Your task to perform on an android device: Check the news Image 0: 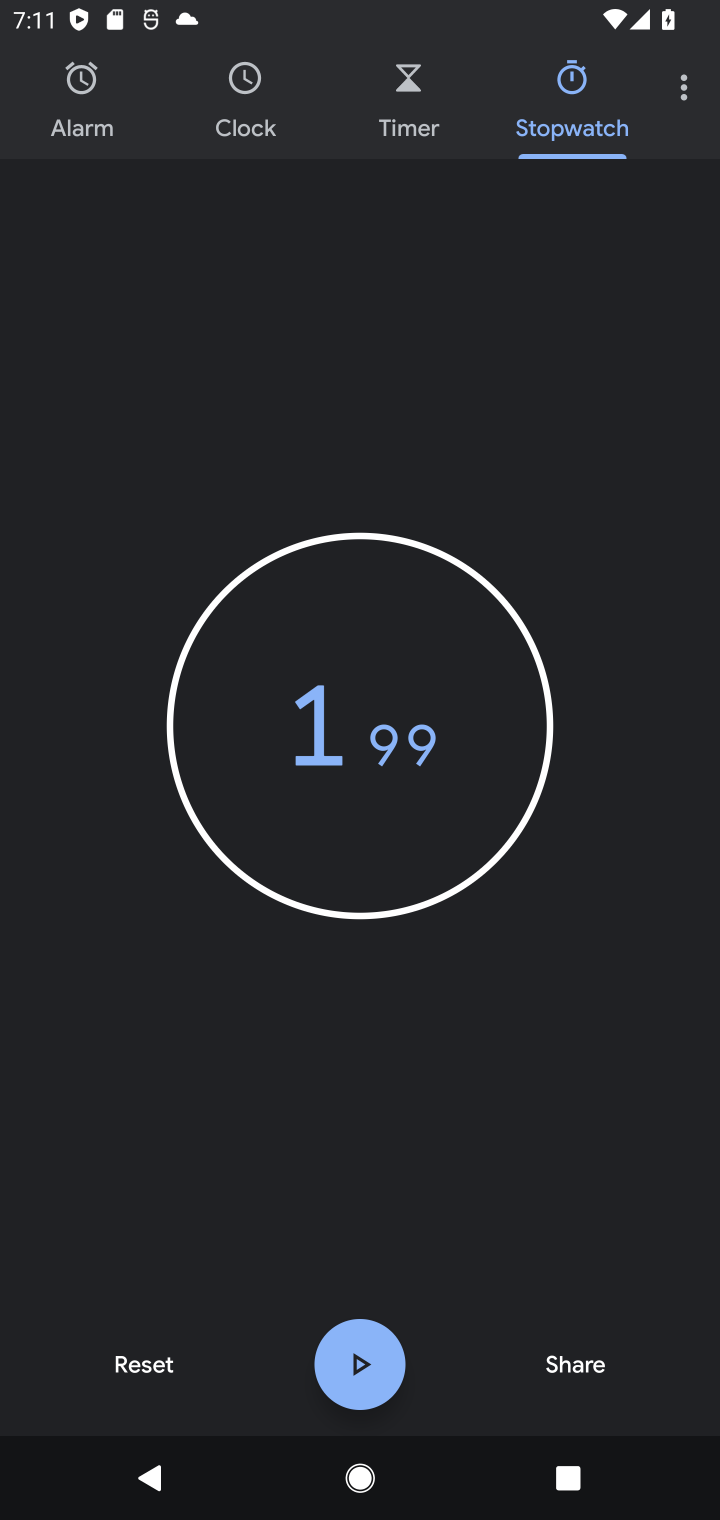
Step 0: press home button
Your task to perform on an android device: Check the news Image 1: 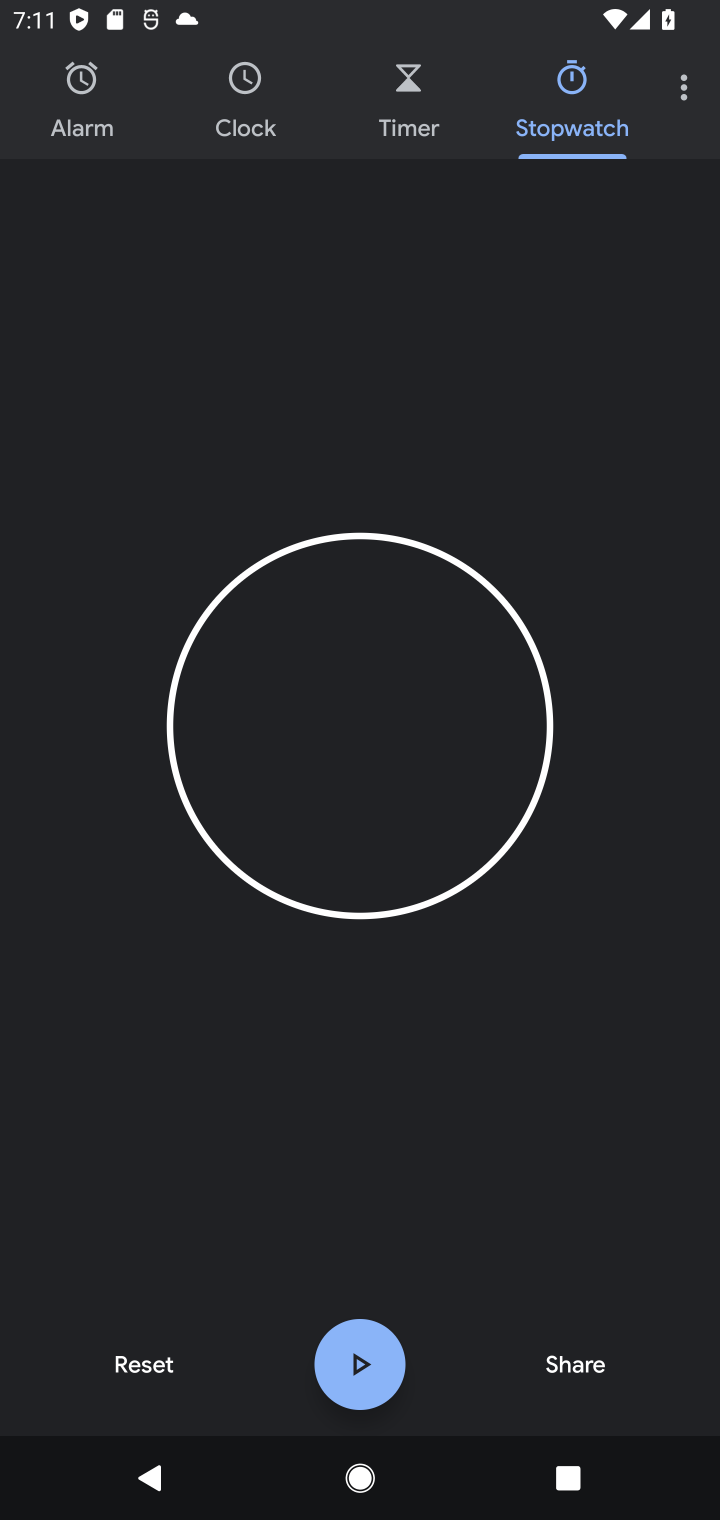
Step 1: press home button
Your task to perform on an android device: Check the news Image 2: 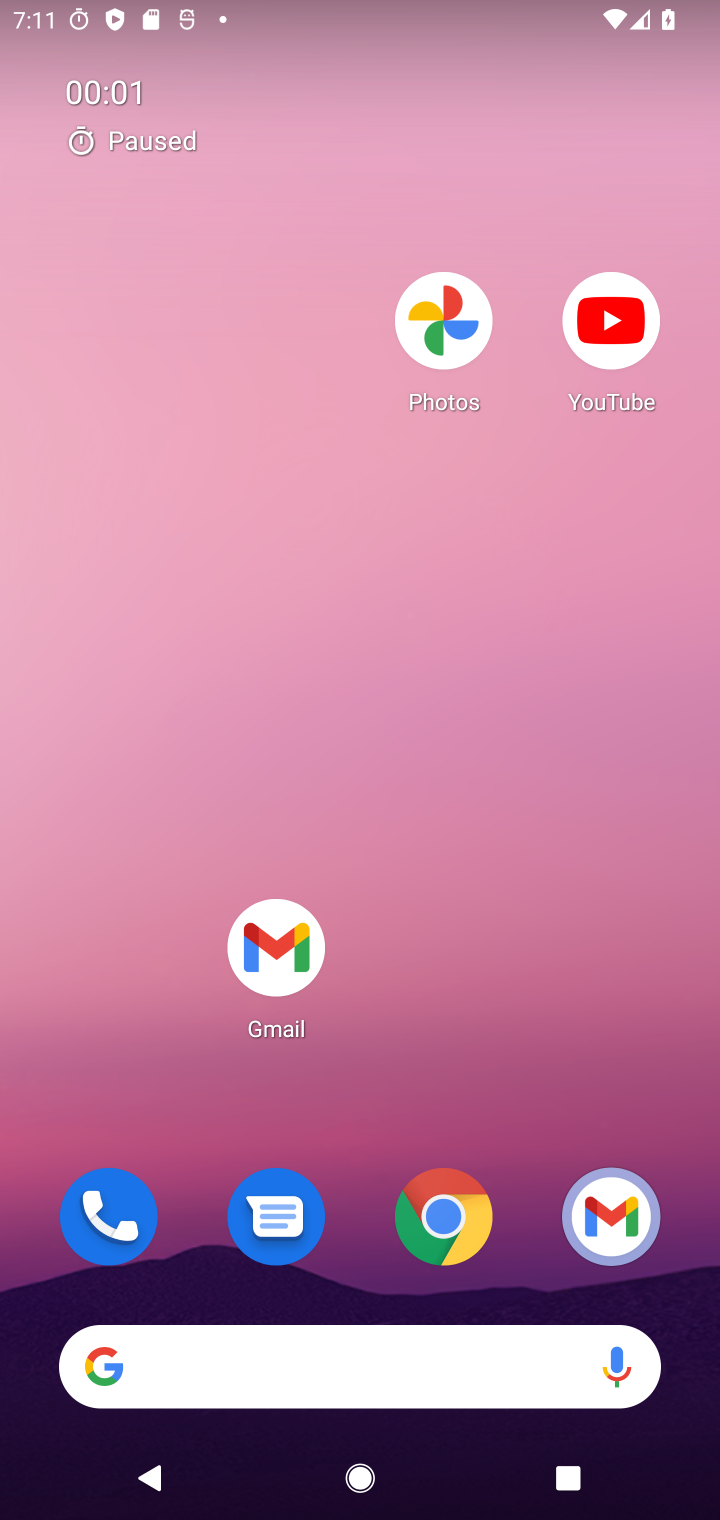
Step 2: click (449, 1213)
Your task to perform on an android device: Check the news Image 3: 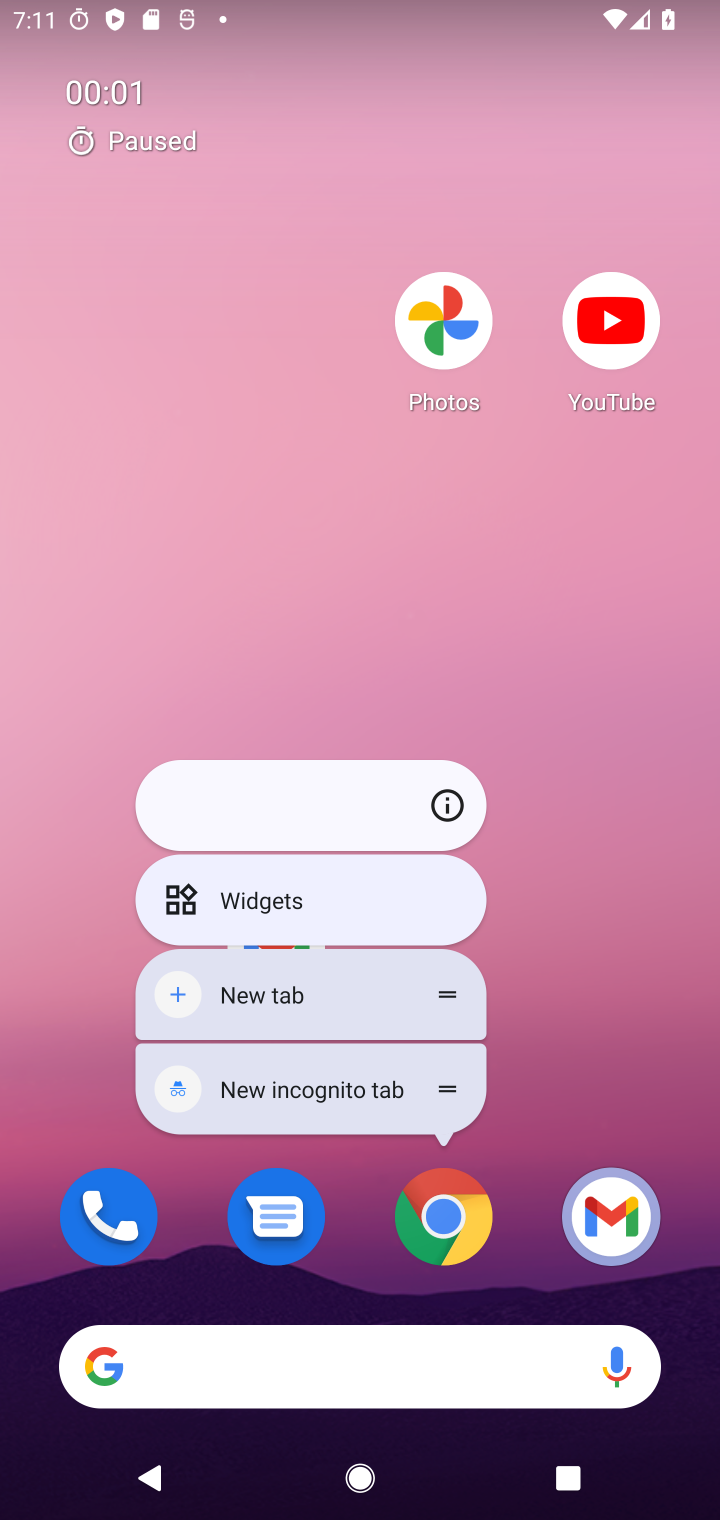
Step 3: click (449, 1204)
Your task to perform on an android device: Check the news Image 4: 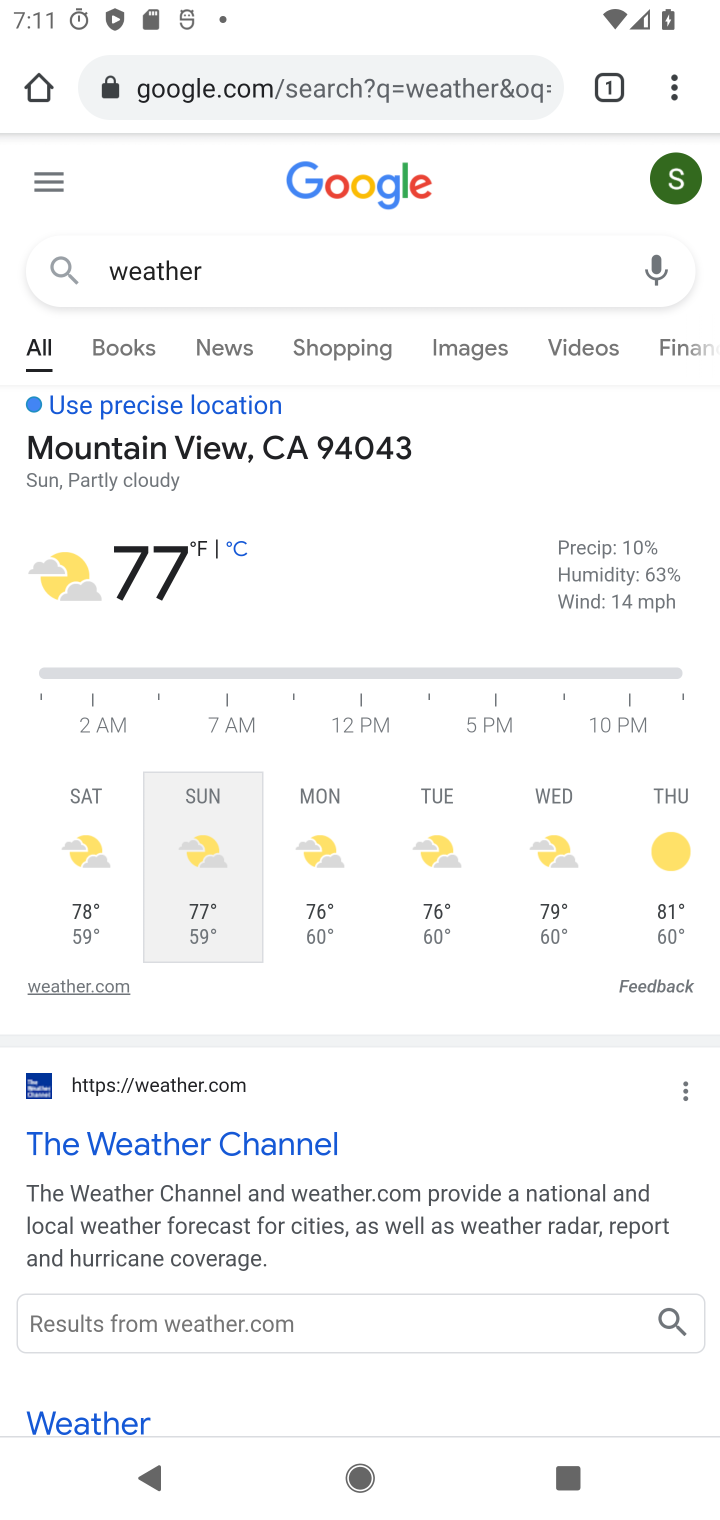
Step 4: click (411, 97)
Your task to perform on an android device: Check the news Image 5: 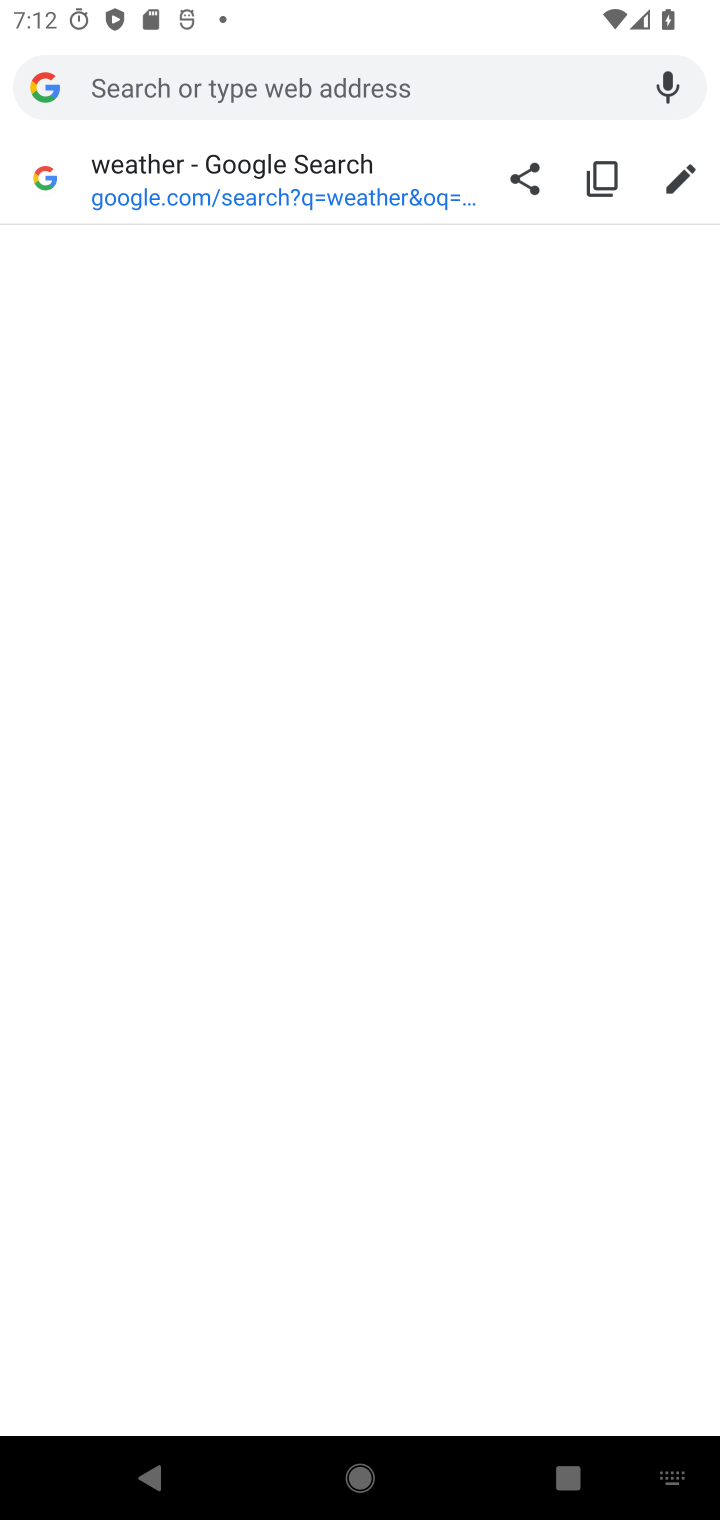
Step 5: type "news"
Your task to perform on an android device: Check the news Image 6: 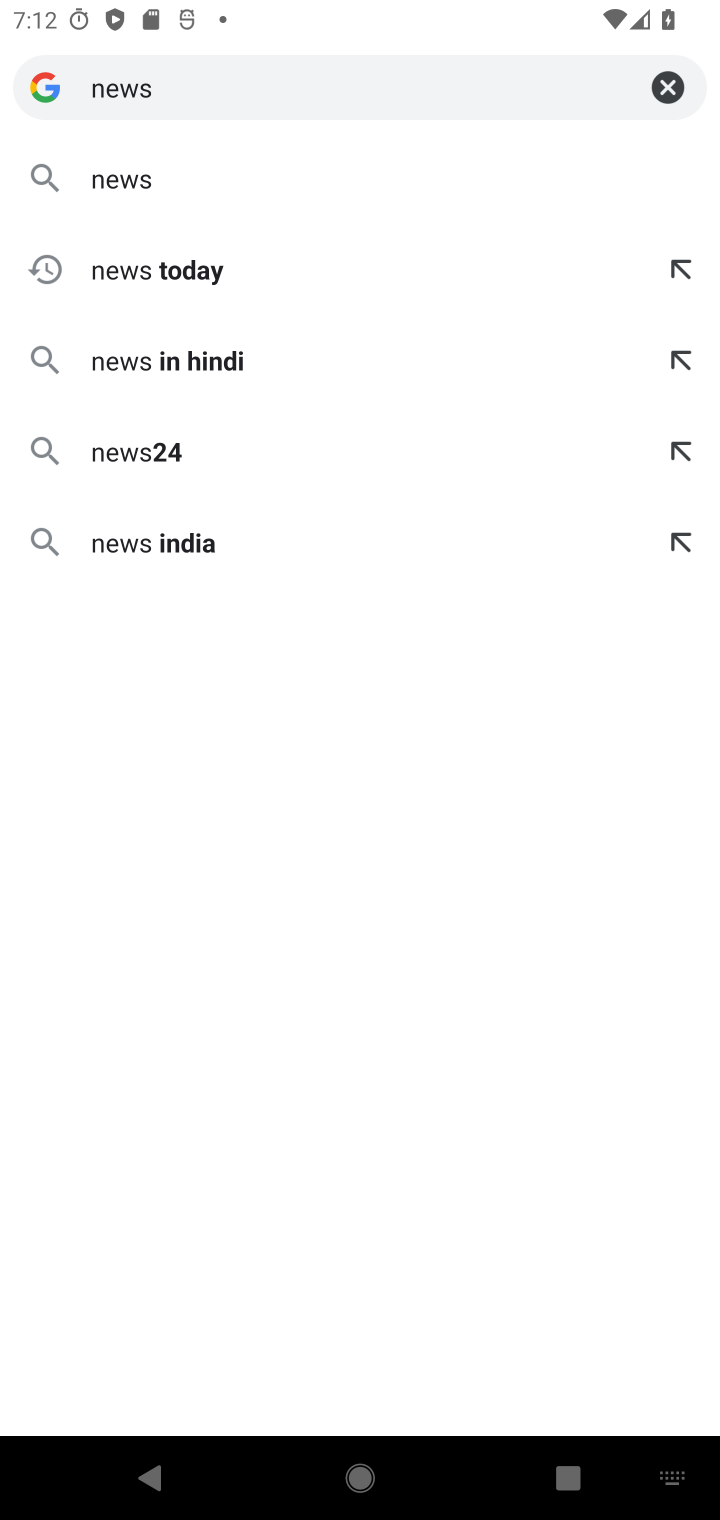
Step 6: click (107, 177)
Your task to perform on an android device: Check the news Image 7: 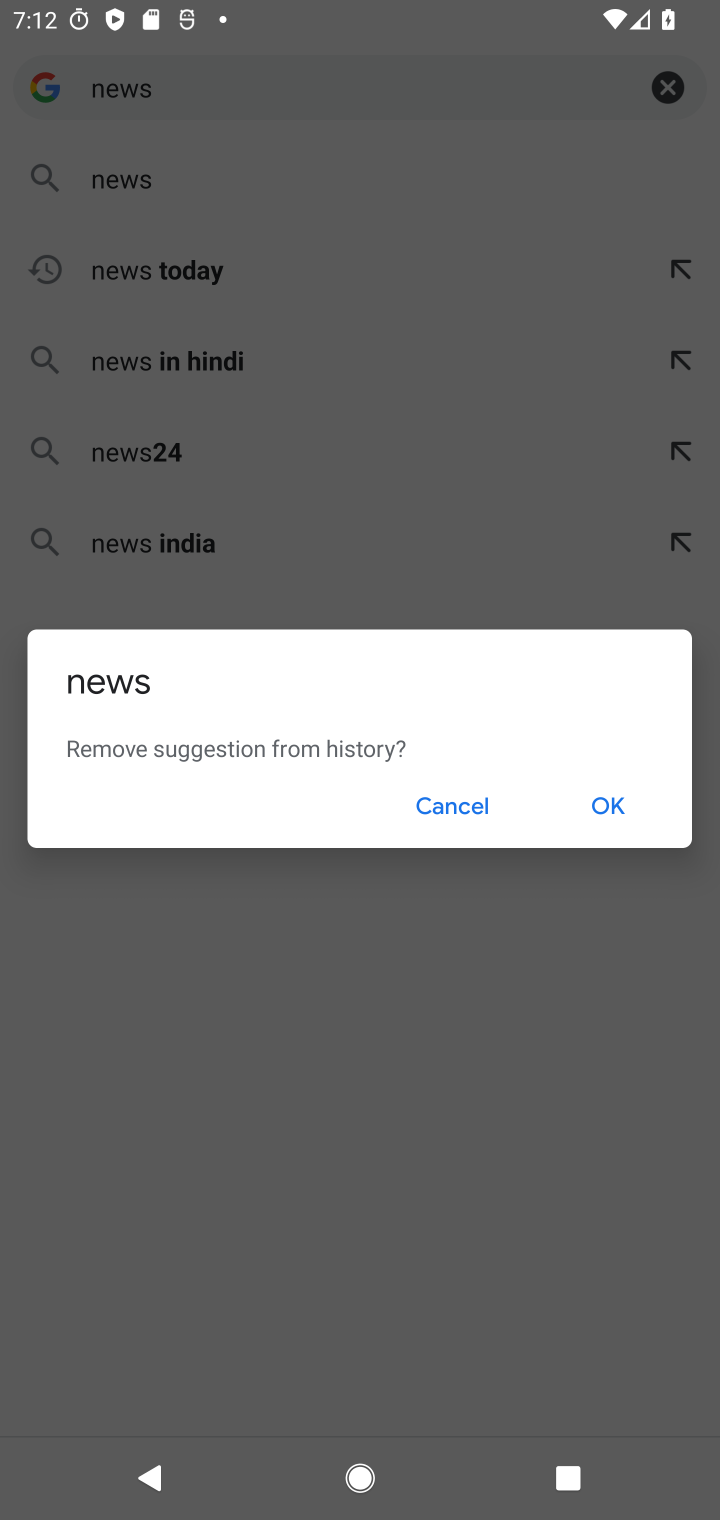
Step 7: click (450, 796)
Your task to perform on an android device: Check the news Image 8: 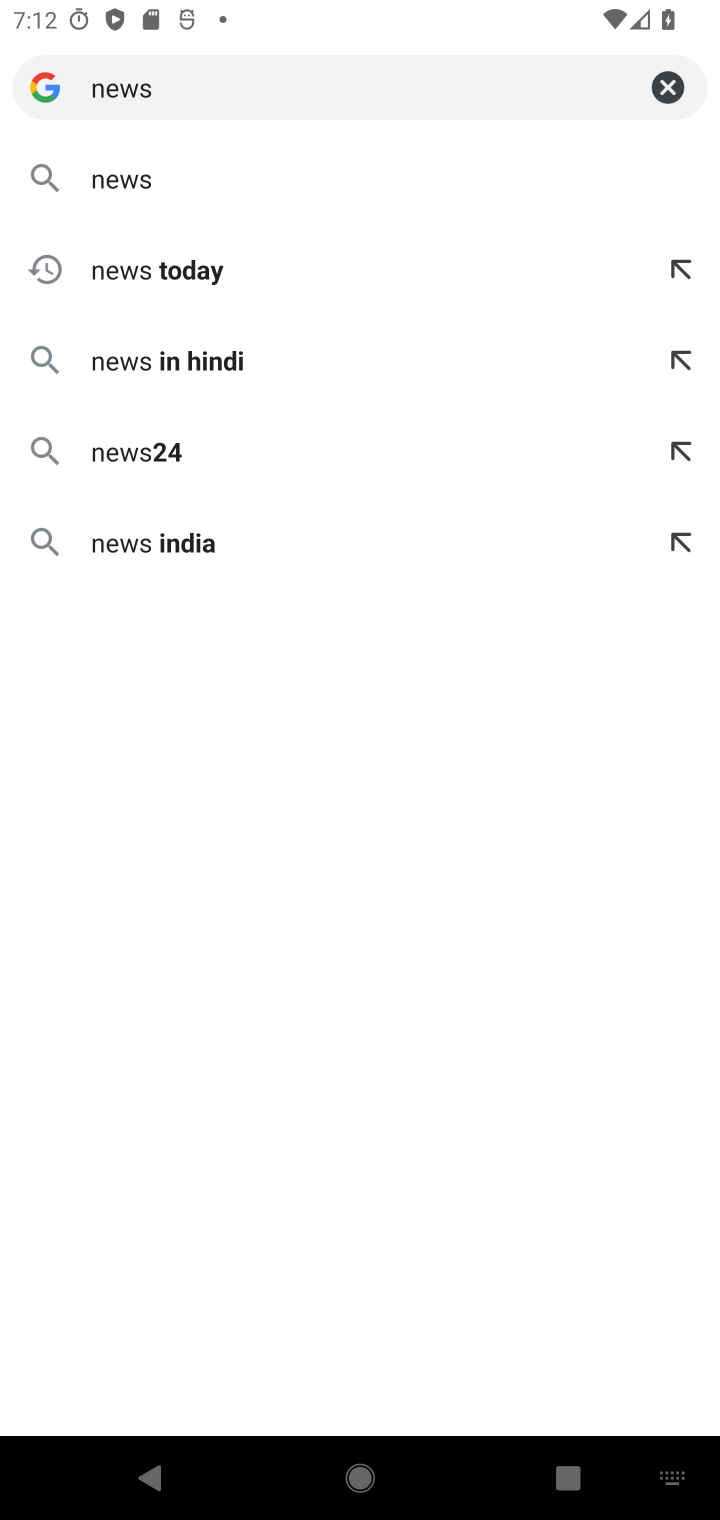
Step 8: click (125, 188)
Your task to perform on an android device: Check the news Image 9: 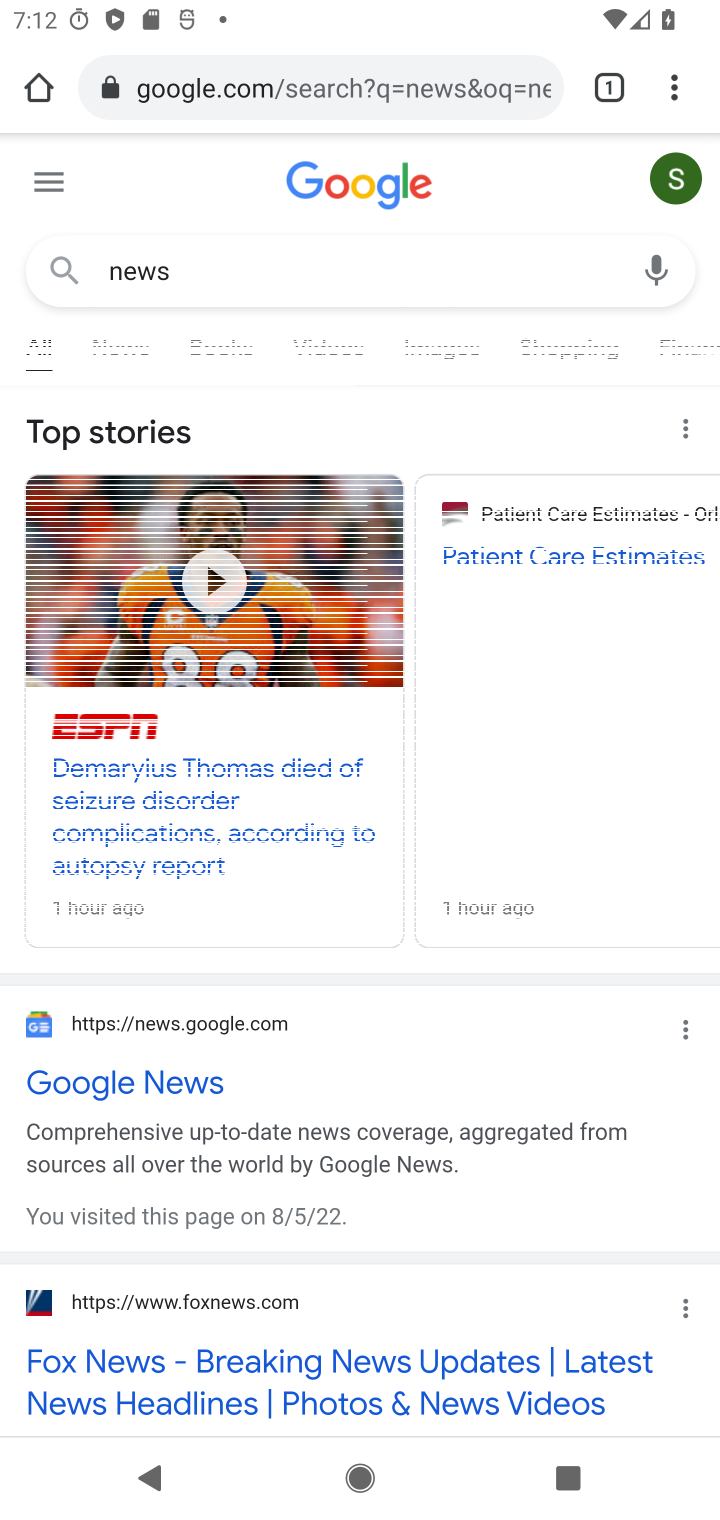
Step 9: click (169, 1095)
Your task to perform on an android device: Check the news Image 10: 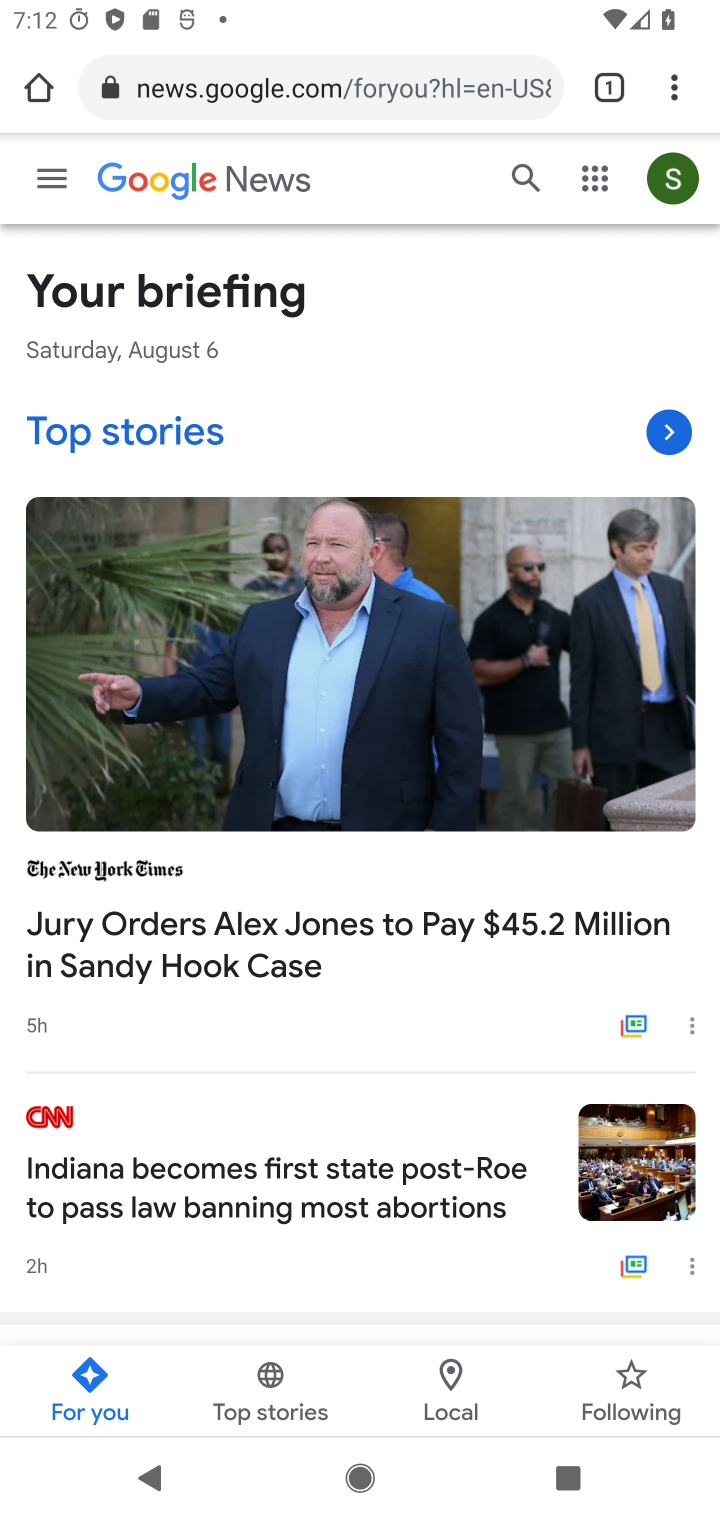
Step 10: task complete